Your task to perform on an android device: Open location settings Image 0: 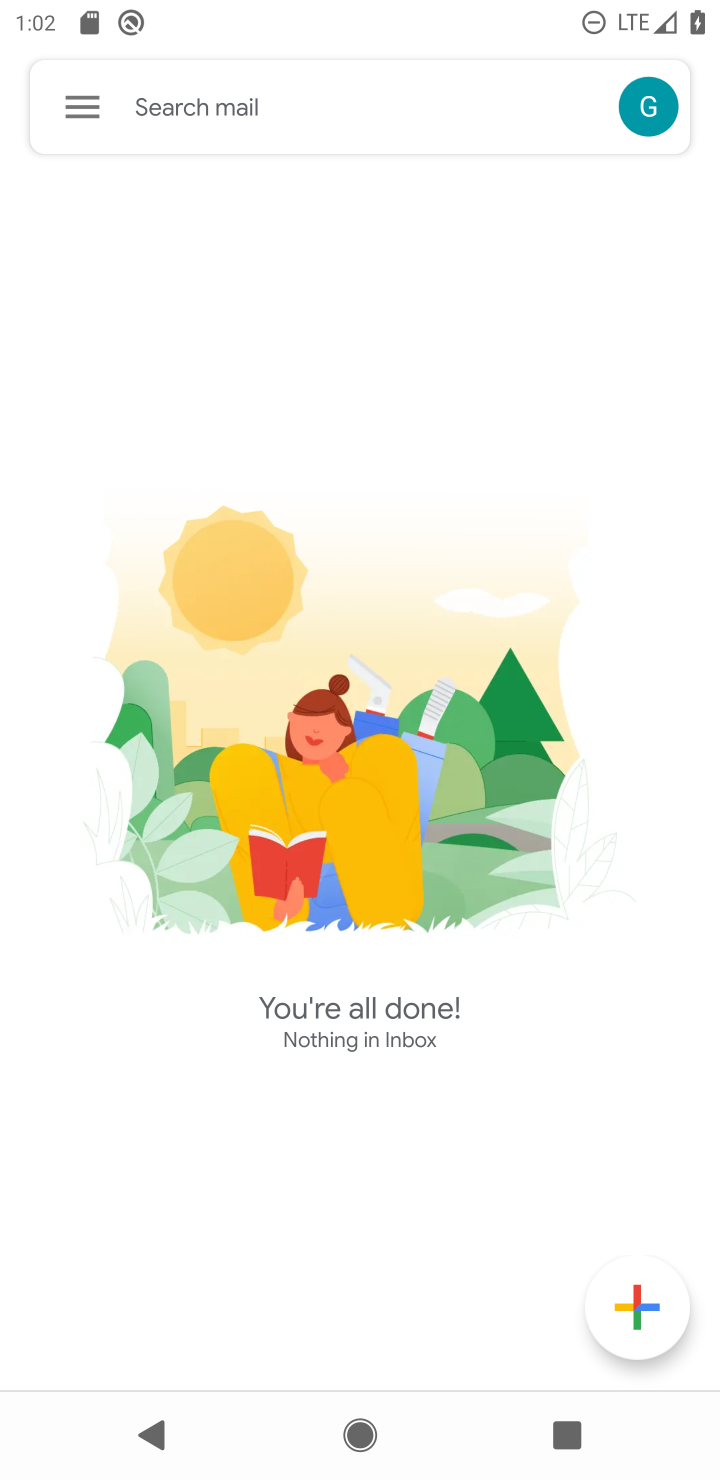
Step 0: press home button
Your task to perform on an android device: Open location settings Image 1: 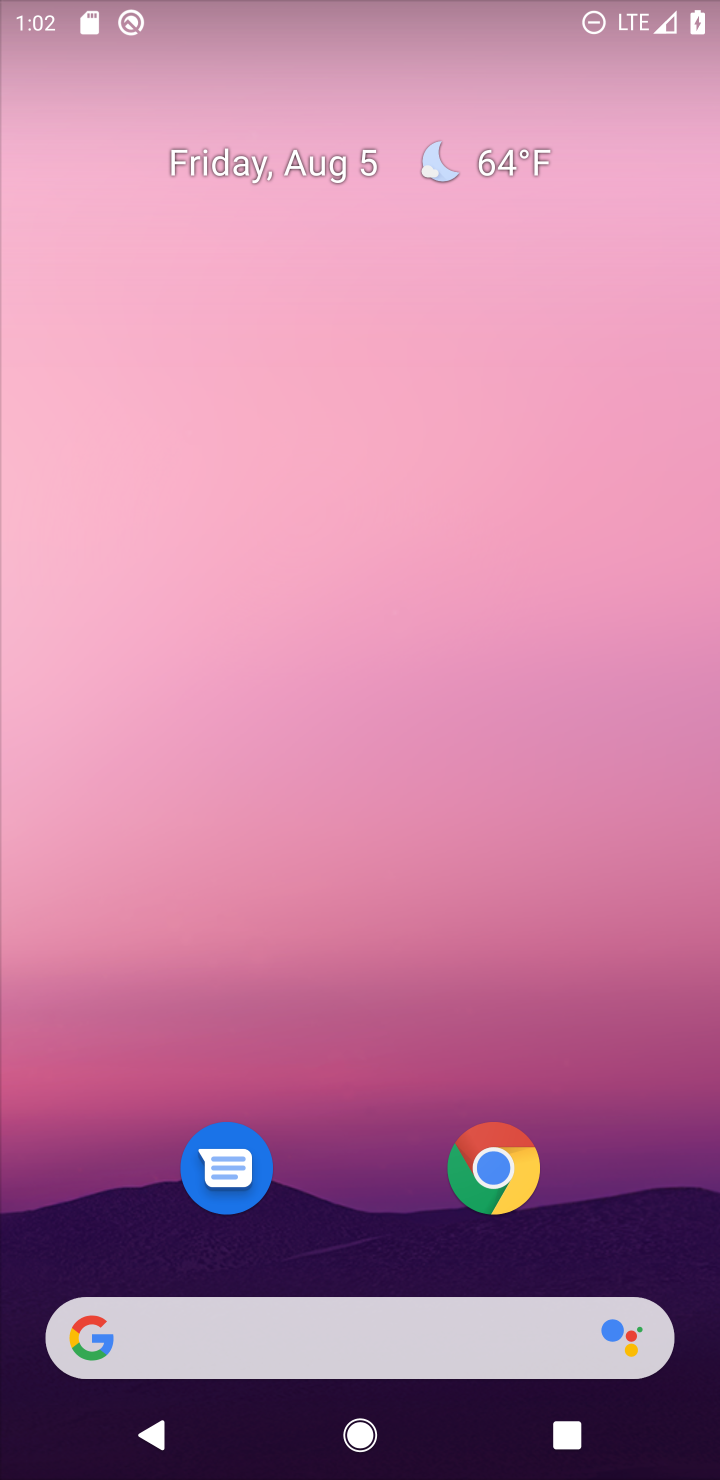
Step 1: drag from (538, 894) to (254, 89)
Your task to perform on an android device: Open location settings Image 2: 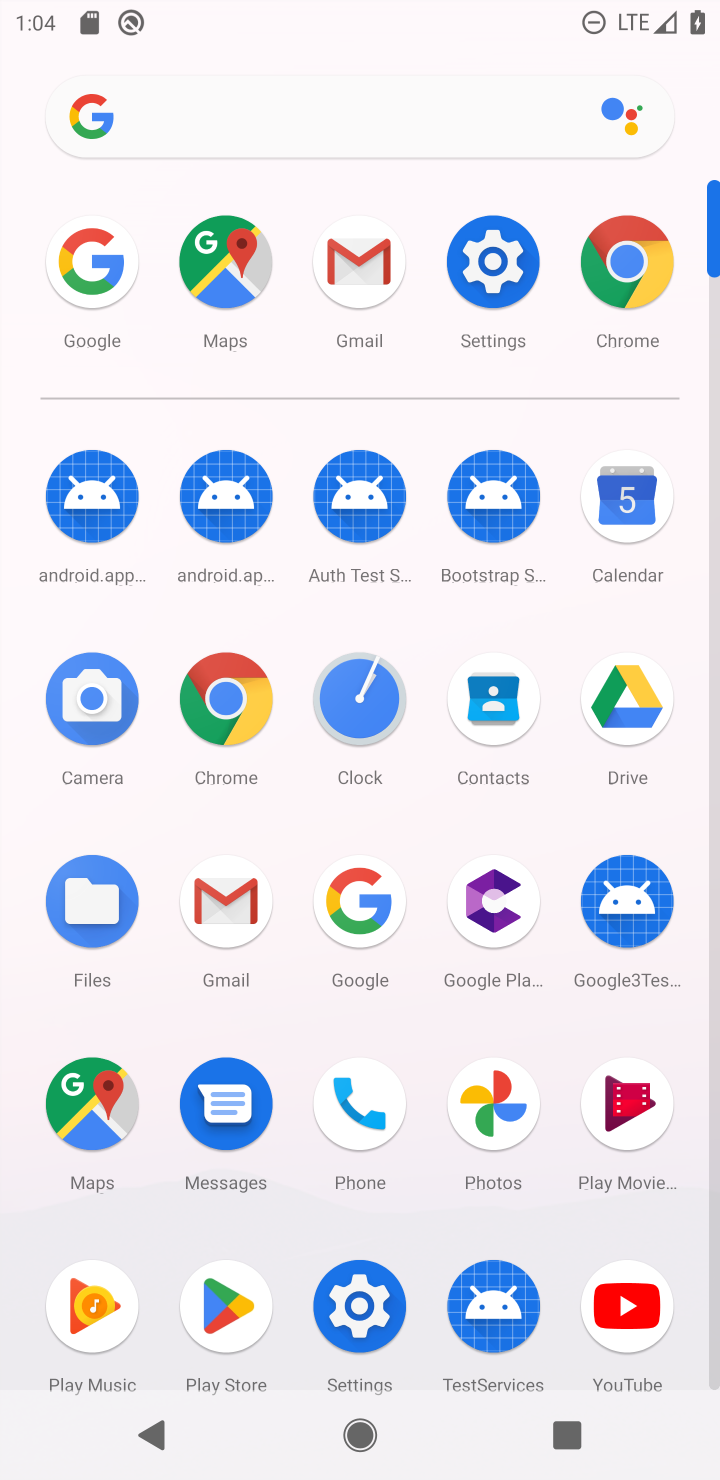
Step 2: click (387, 1287)
Your task to perform on an android device: Open location settings Image 3: 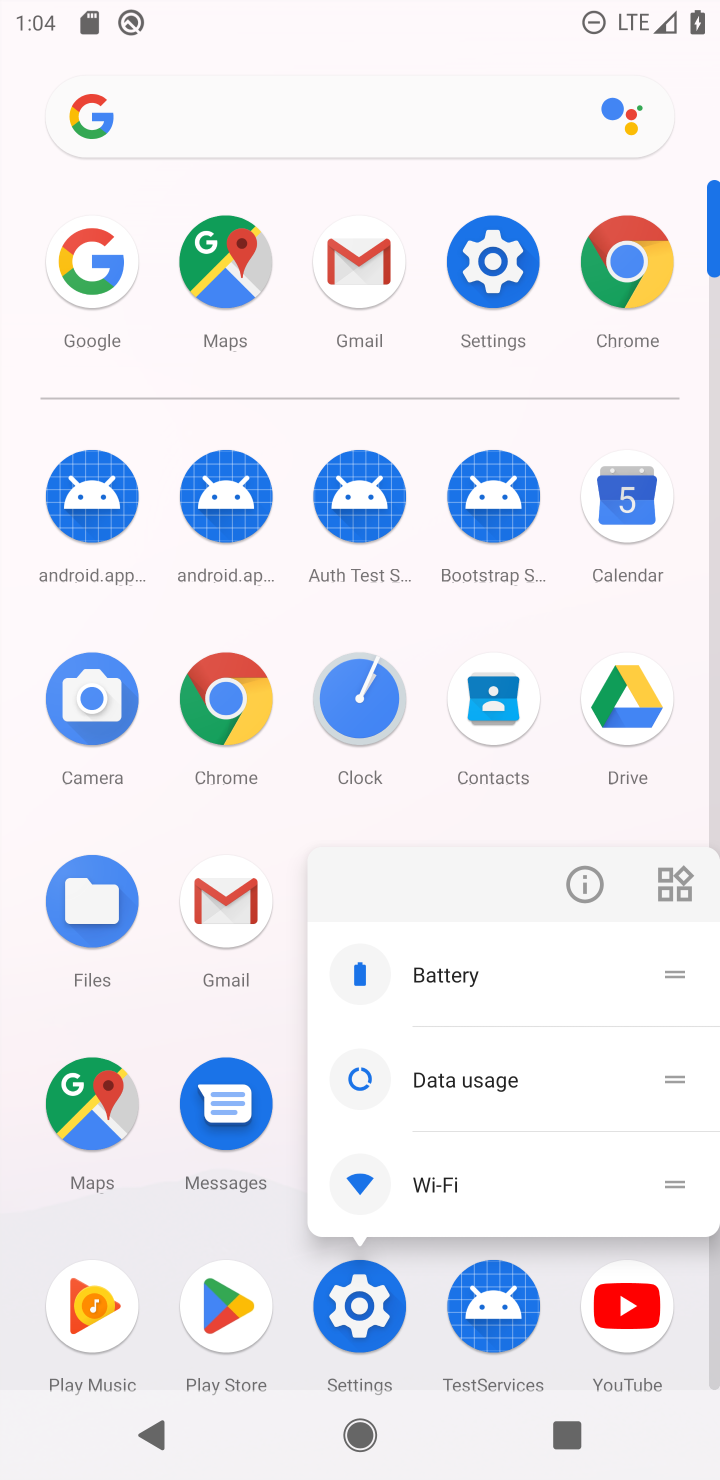
Step 3: click (387, 1287)
Your task to perform on an android device: Open location settings Image 4: 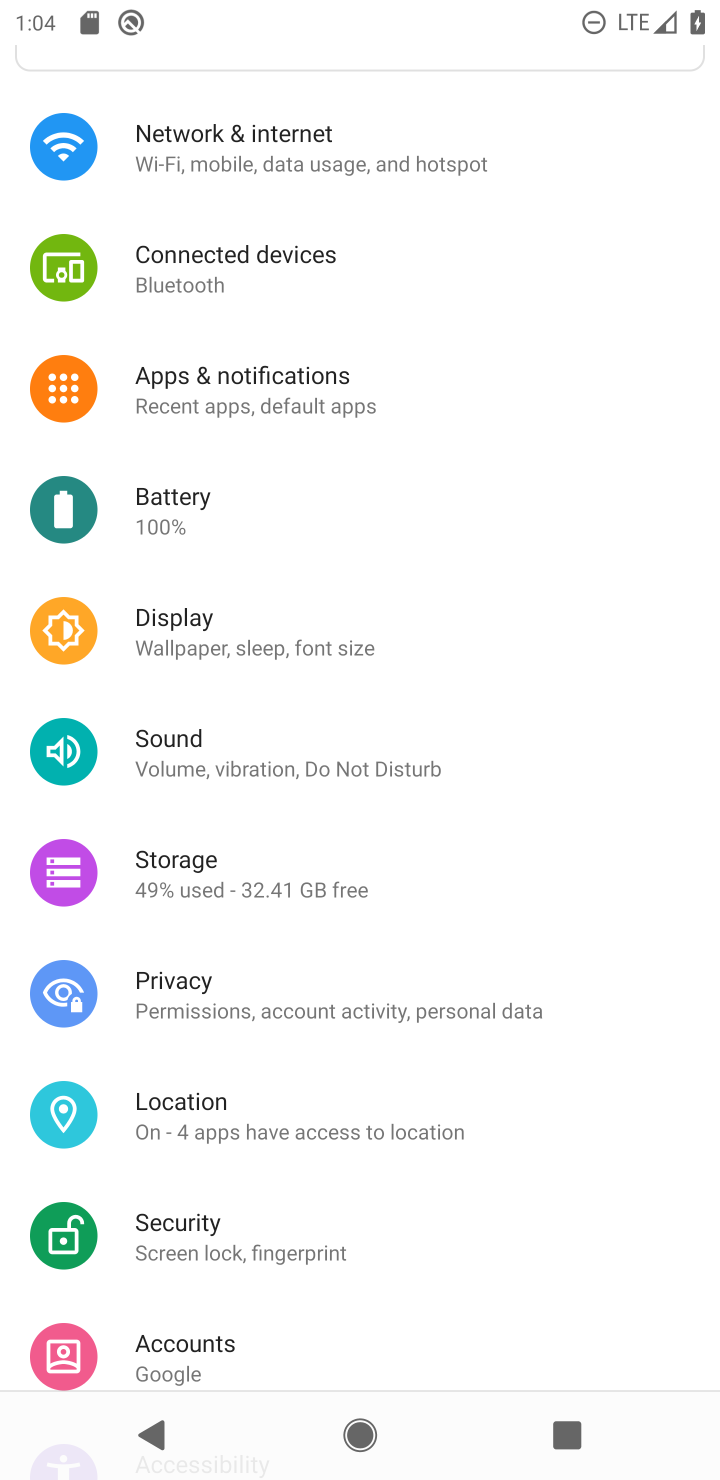
Step 4: click (219, 1099)
Your task to perform on an android device: Open location settings Image 5: 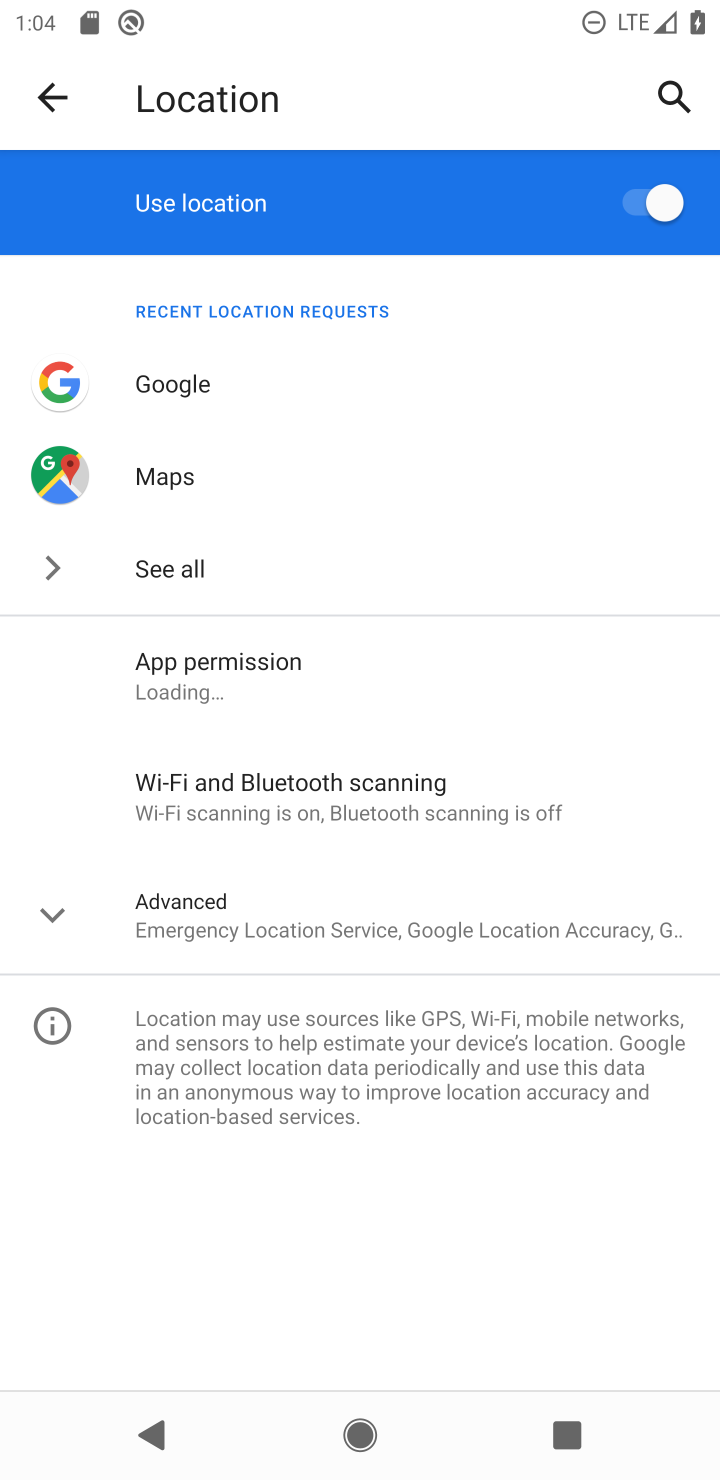
Step 5: click (98, 920)
Your task to perform on an android device: Open location settings Image 6: 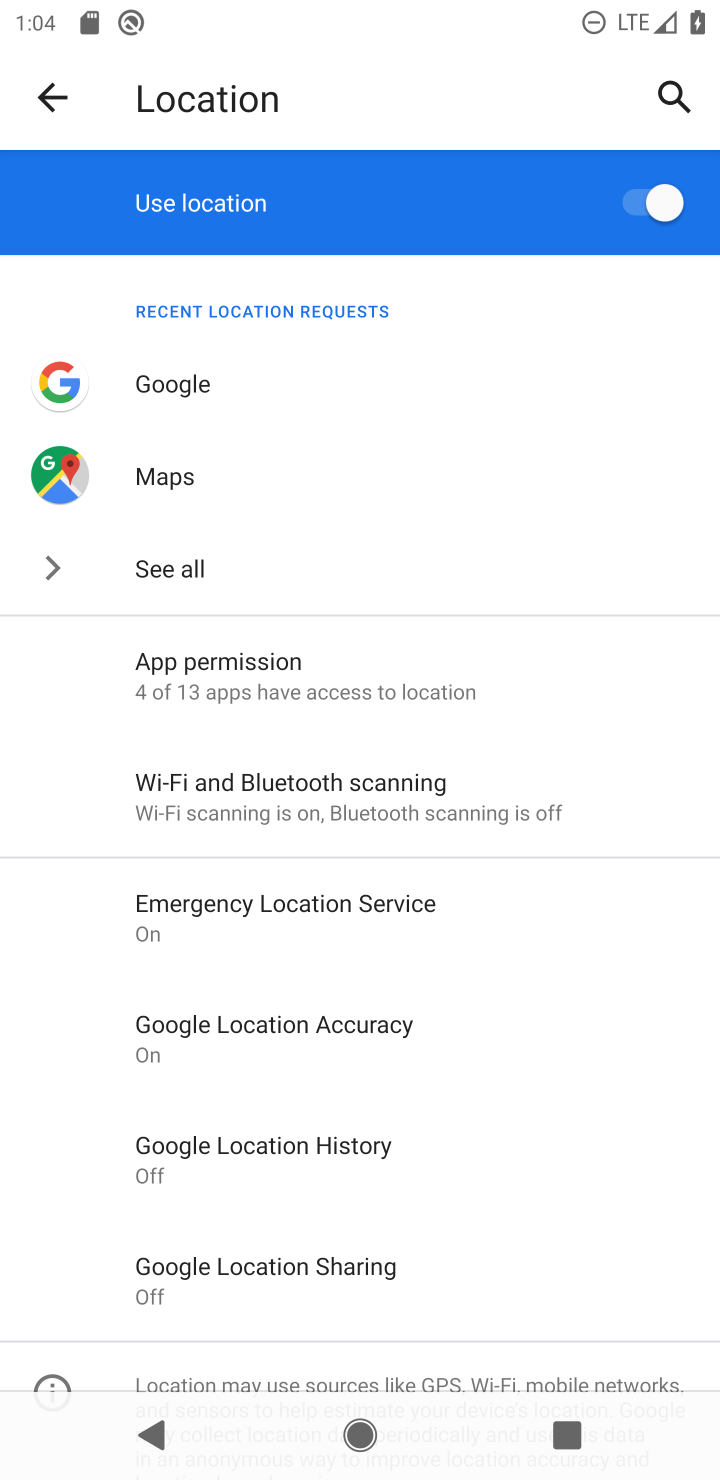
Step 6: task complete